Your task to perform on an android device: Open Chrome and go to settings Image 0: 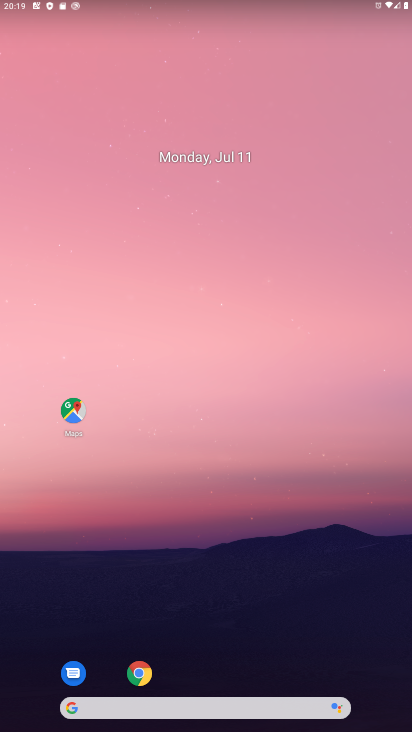
Step 0: click (140, 672)
Your task to perform on an android device: Open Chrome and go to settings Image 1: 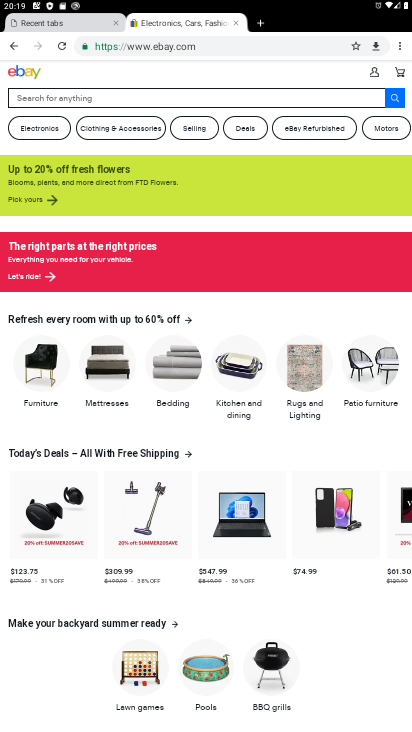
Step 1: click (398, 42)
Your task to perform on an android device: Open Chrome and go to settings Image 2: 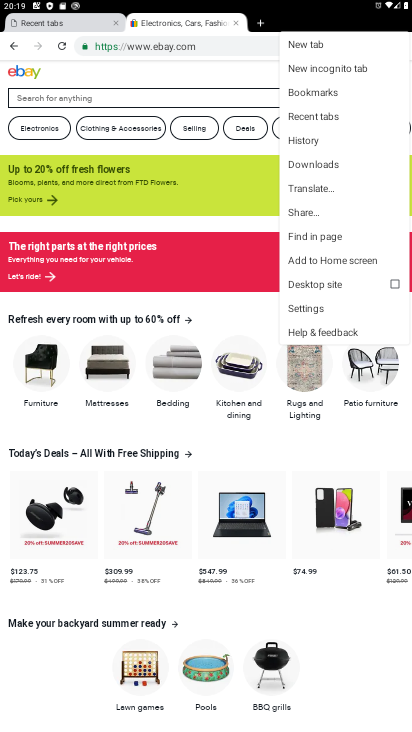
Step 2: click (325, 307)
Your task to perform on an android device: Open Chrome and go to settings Image 3: 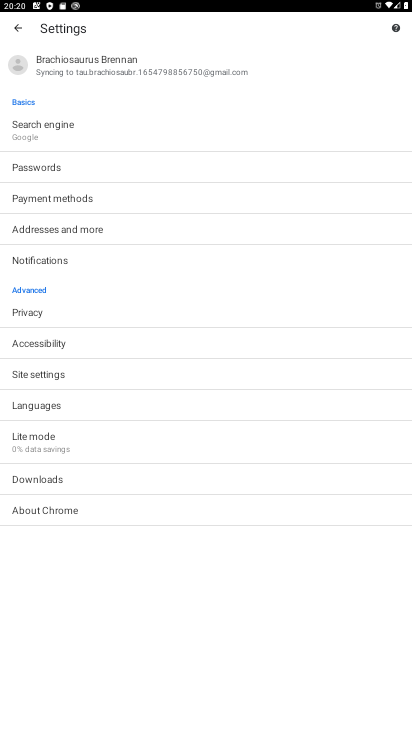
Step 3: task complete